Your task to perform on an android device: Open privacy settings Image 0: 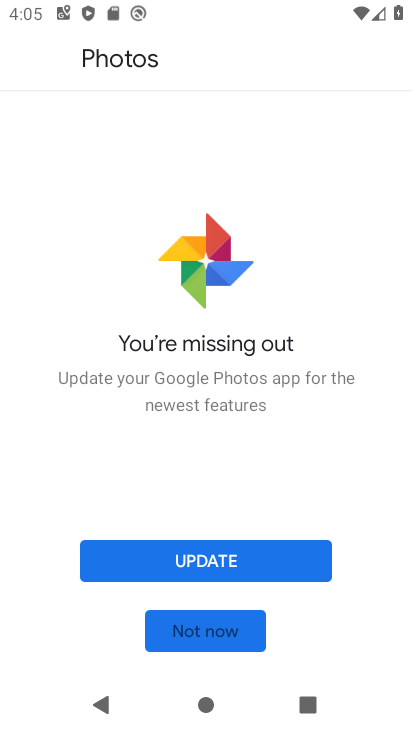
Step 0: press home button
Your task to perform on an android device: Open privacy settings Image 1: 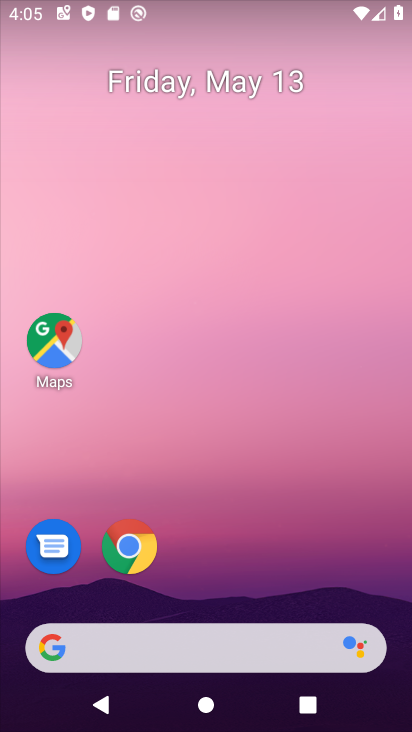
Step 1: press home button
Your task to perform on an android device: Open privacy settings Image 2: 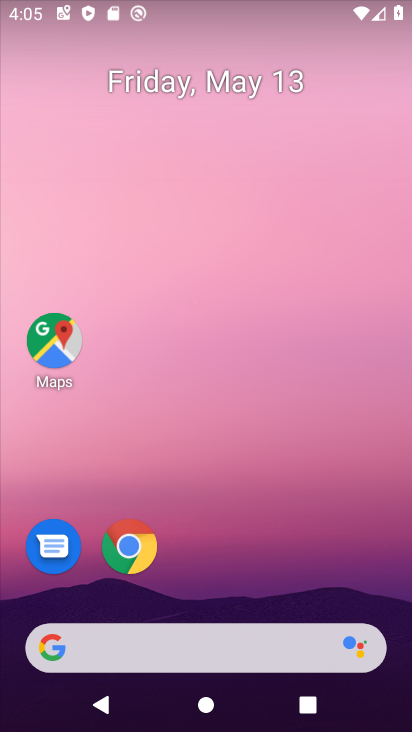
Step 2: drag from (198, 602) to (214, 0)
Your task to perform on an android device: Open privacy settings Image 3: 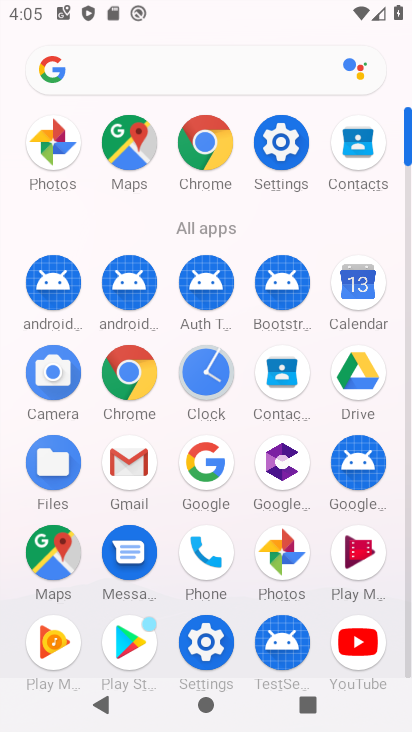
Step 3: click (284, 151)
Your task to perform on an android device: Open privacy settings Image 4: 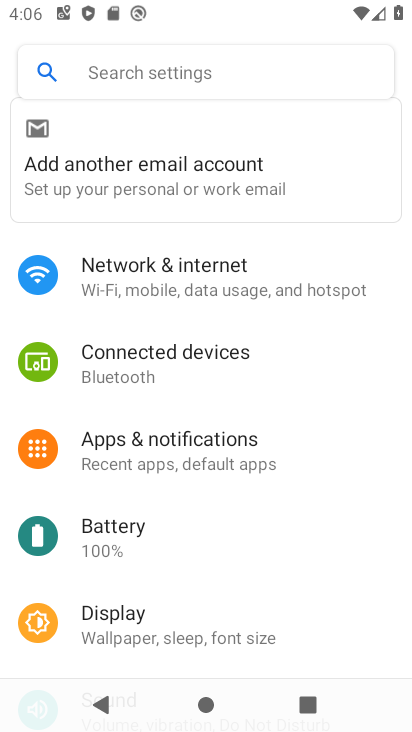
Step 4: drag from (171, 570) to (226, 7)
Your task to perform on an android device: Open privacy settings Image 5: 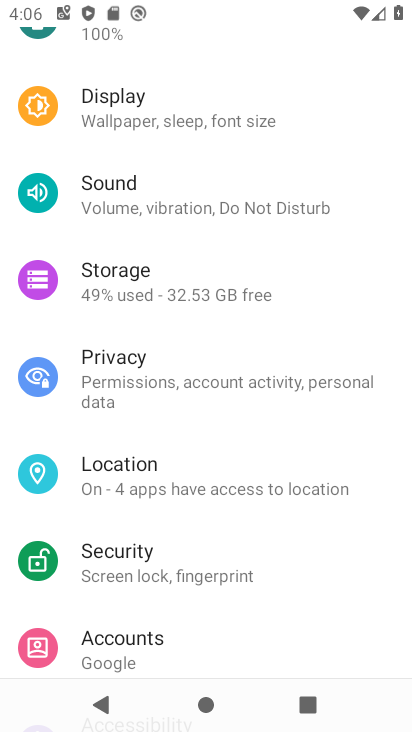
Step 5: drag from (161, 571) to (168, 526)
Your task to perform on an android device: Open privacy settings Image 6: 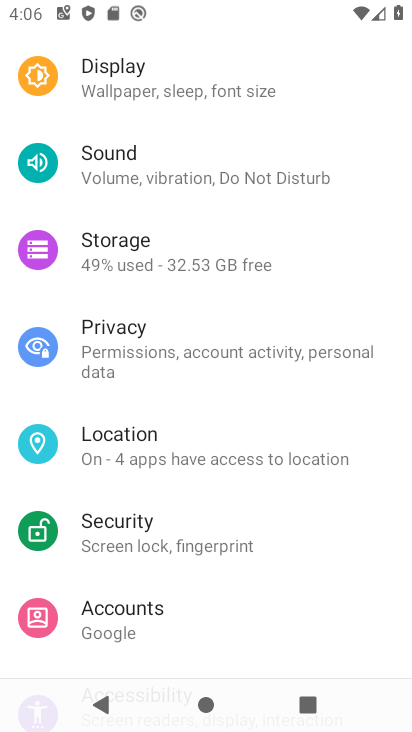
Step 6: click (130, 347)
Your task to perform on an android device: Open privacy settings Image 7: 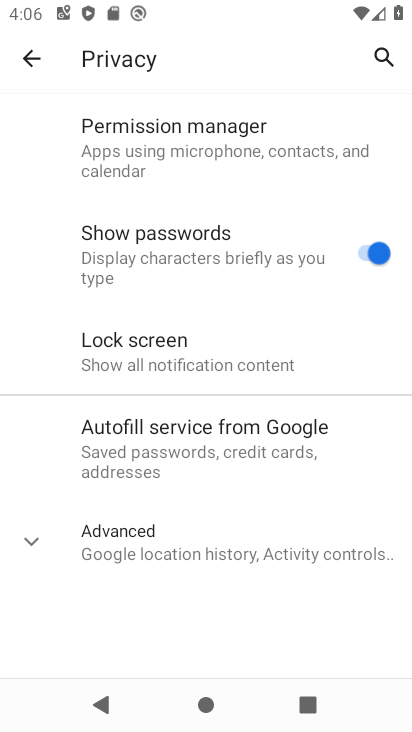
Step 7: task complete